Your task to perform on an android device: Open Google Chrome and open the bookmarks view Image 0: 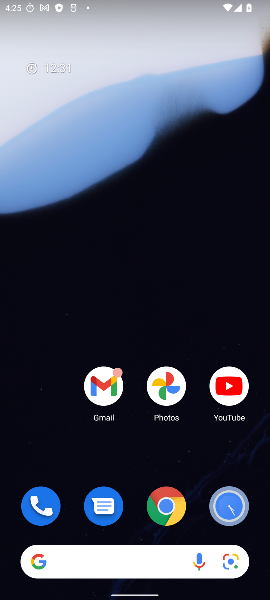
Step 0: drag from (170, 418) to (15, 277)
Your task to perform on an android device: Open Google Chrome and open the bookmarks view Image 1: 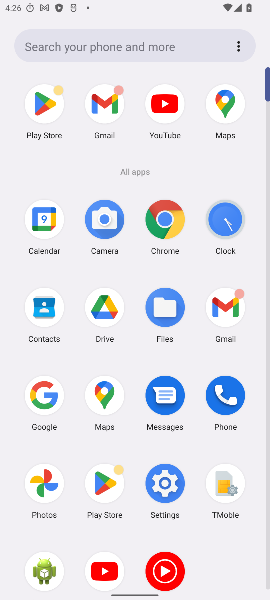
Step 1: click (157, 211)
Your task to perform on an android device: Open Google Chrome and open the bookmarks view Image 2: 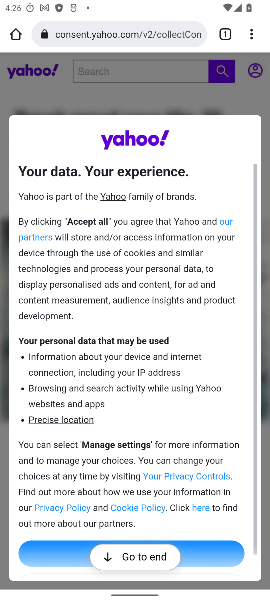
Step 2: task complete